Your task to perform on an android device: turn notification dots on Image 0: 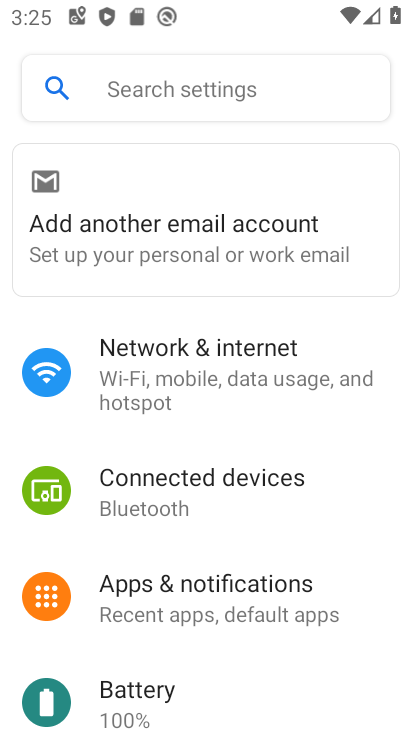
Step 0: click (199, 600)
Your task to perform on an android device: turn notification dots on Image 1: 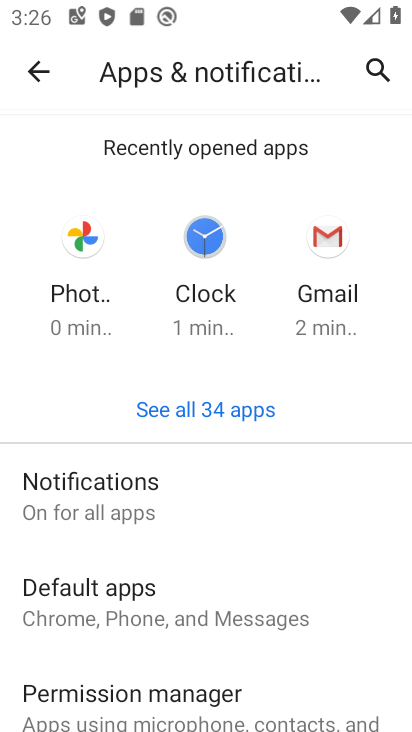
Step 1: click (194, 499)
Your task to perform on an android device: turn notification dots on Image 2: 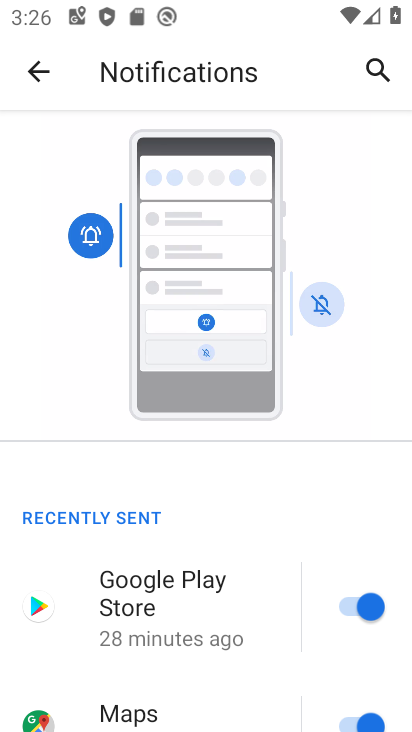
Step 2: drag from (218, 621) to (218, 316)
Your task to perform on an android device: turn notification dots on Image 3: 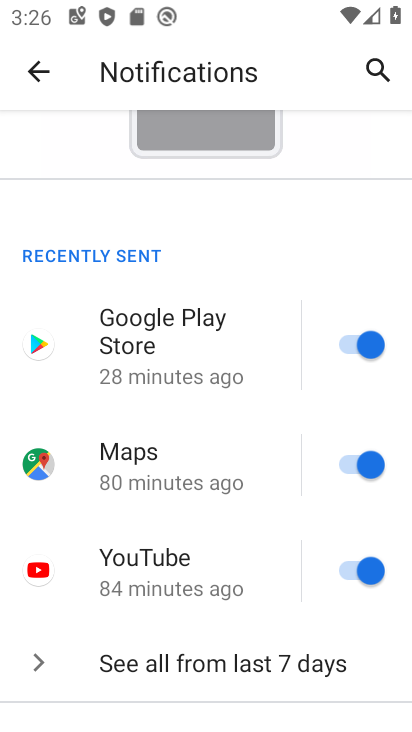
Step 3: drag from (210, 657) to (299, 123)
Your task to perform on an android device: turn notification dots on Image 4: 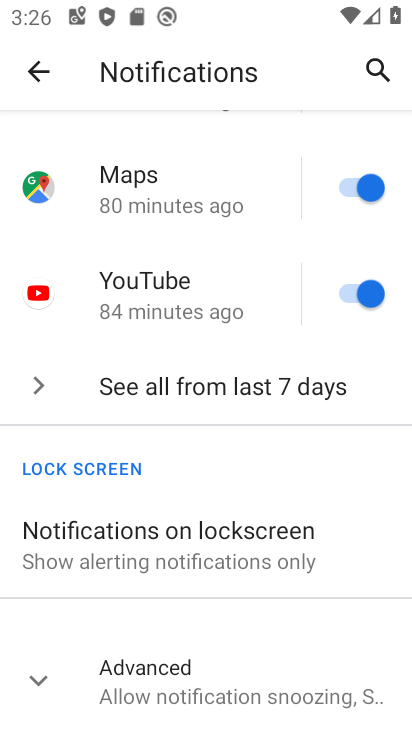
Step 4: click (146, 698)
Your task to perform on an android device: turn notification dots on Image 5: 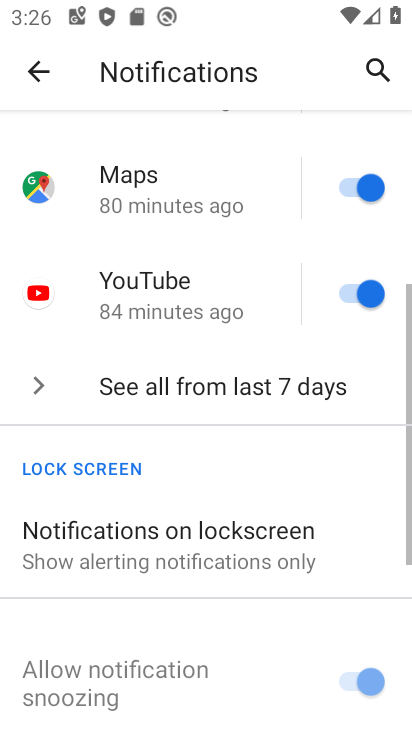
Step 5: drag from (199, 660) to (306, 123)
Your task to perform on an android device: turn notification dots on Image 6: 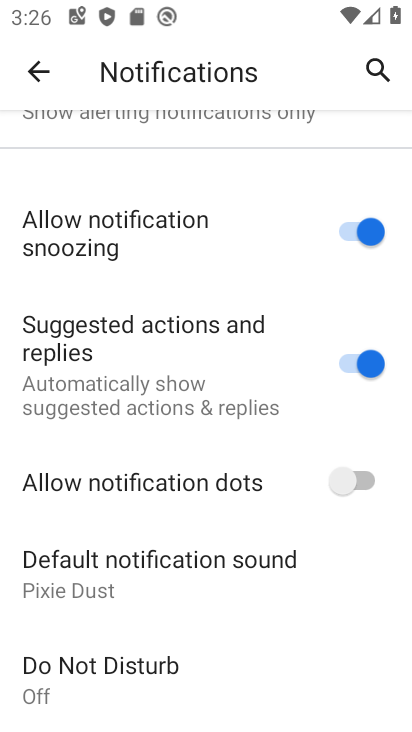
Step 6: click (253, 483)
Your task to perform on an android device: turn notification dots on Image 7: 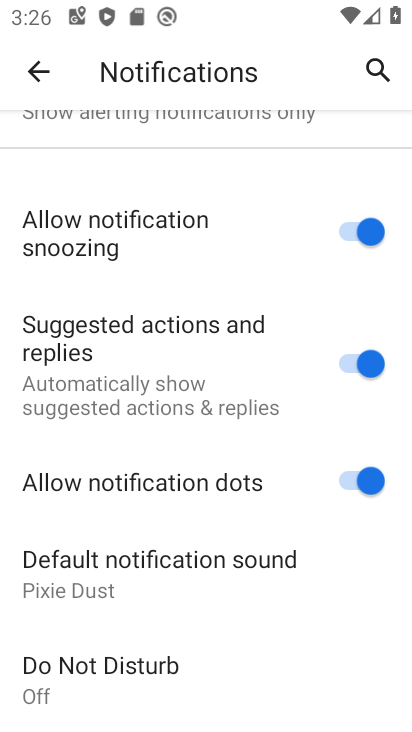
Step 7: task complete